Your task to perform on an android device: turn off improve location accuracy Image 0: 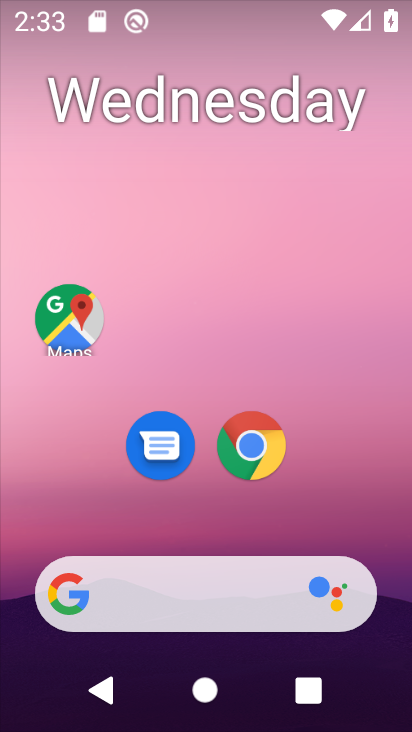
Step 0: drag from (371, 480) to (339, 27)
Your task to perform on an android device: turn off improve location accuracy Image 1: 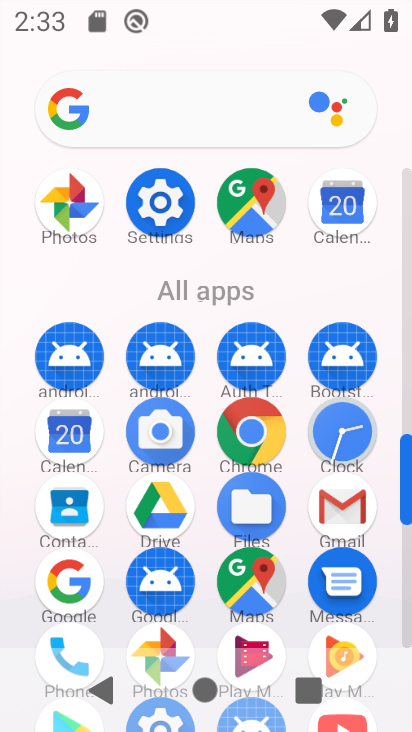
Step 1: click (165, 202)
Your task to perform on an android device: turn off improve location accuracy Image 2: 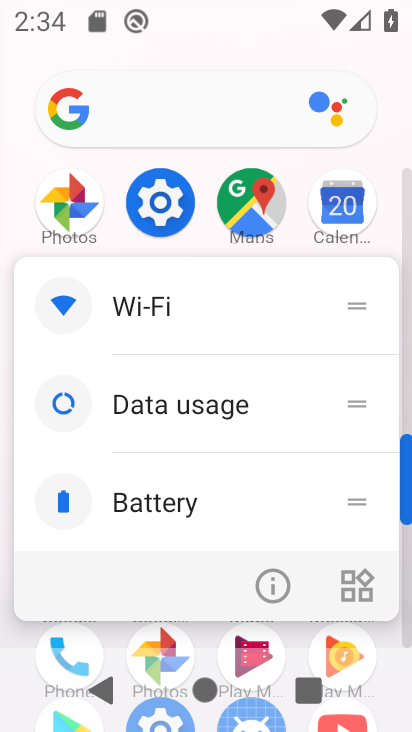
Step 2: click (163, 203)
Your task to perform on an android device: turn off improve location accuracy Image 3: 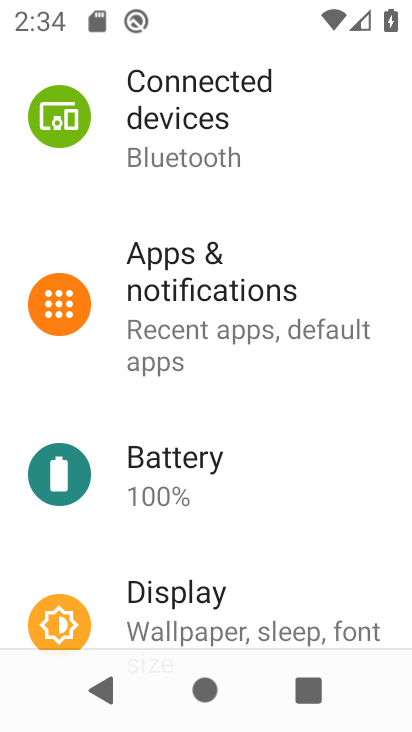
Step 3: drag from (363, 572) to (345, 174)
Your task to perform on an android device: turn off improve location accuracy Image 4: 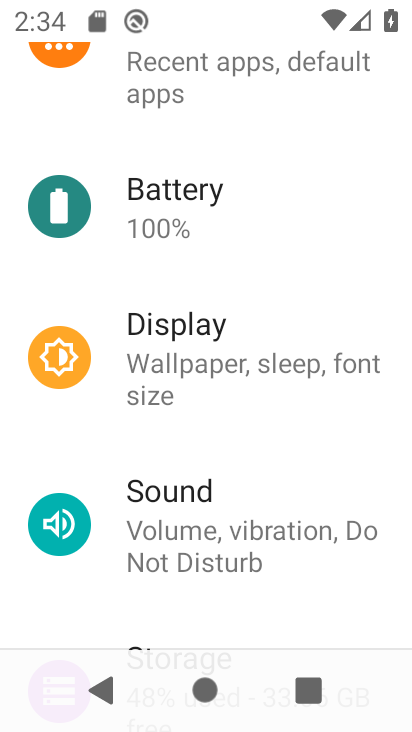
Step 4: drag from (351, 465) to (331, 182)
Your task to perform on an android device: turn off improve location accuracy Image 5: 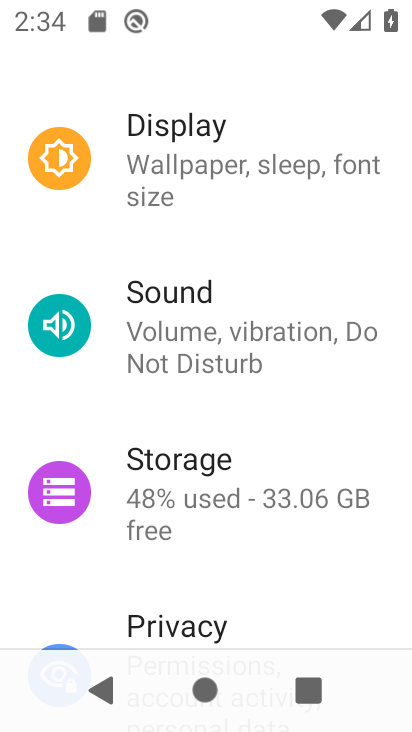
Step 5: drag from (342, 388) to (329, 190)
Your task to perform on an android device: turn off improve location accuracy Image 6: 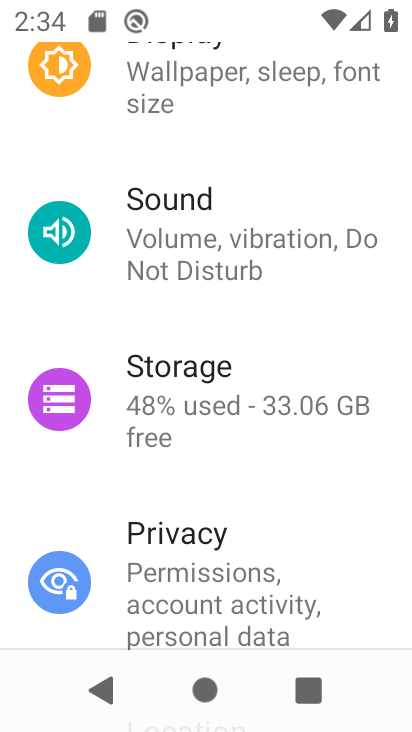
Step 6: drag from (347, 560) to (327, 192)
Your task to perform on an android device: turn off improve location accuracy Image 7: 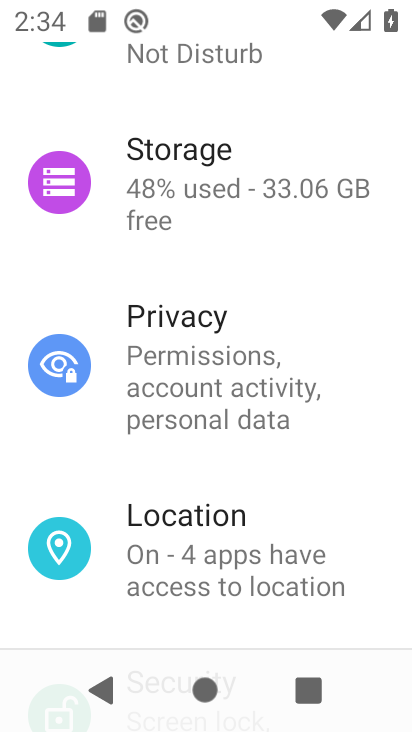
Step 7: click (161, 546)
Your task to perform on an android device: turn off improve location accuracy Image 8: 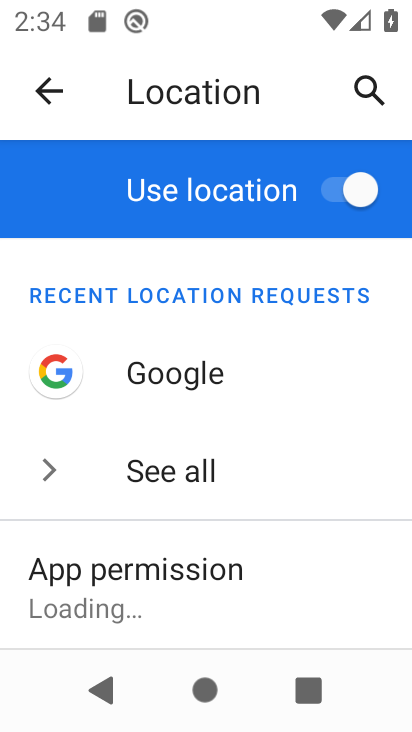
Step 8: drag from (336, 569) to (325, 210)
Your task to perform on an android device: turn off improve location accuracy Image 9: 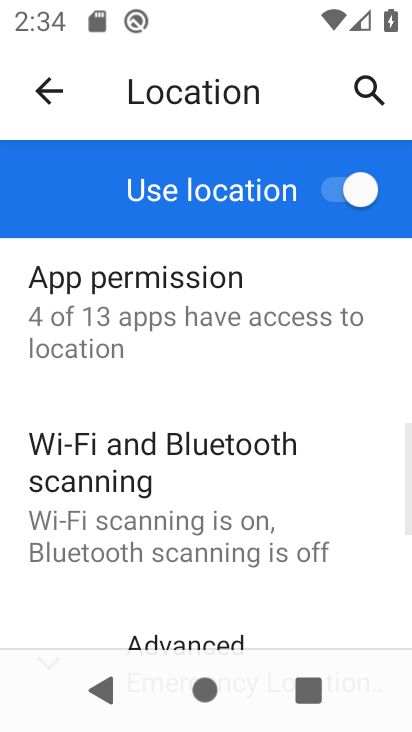
Step 9: drag from (378, 539) to (351, 148)
Your task to perform on an android device: turn off improve location accuracy Image 10: 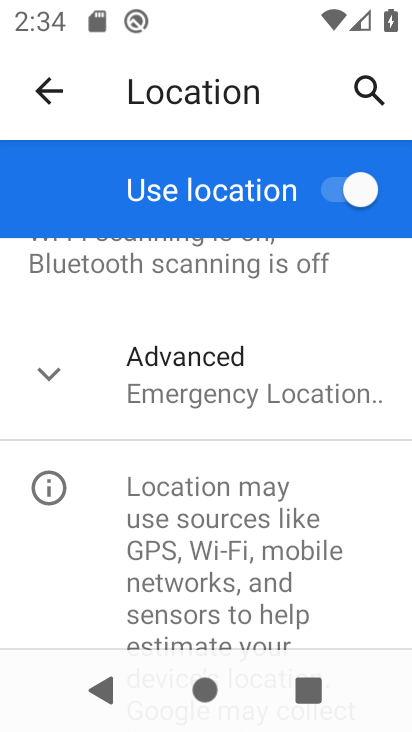
Step 10: click (45, 379)
Your task to perform on an android device: turn off improve location accuracy Image 11: 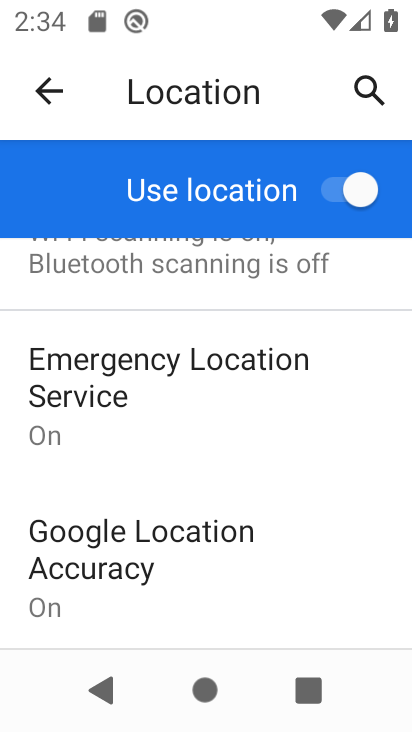
Step 11: click (86, 550)
Your task to perform on an android device: turn off improve location accuracy Image 12: 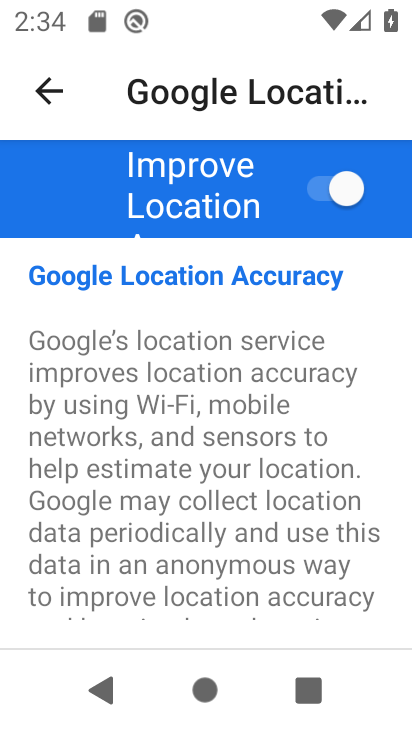
Step 12: click (334, 183)
Your task to perform on an android device: turn off improve location accuracy Image 13: 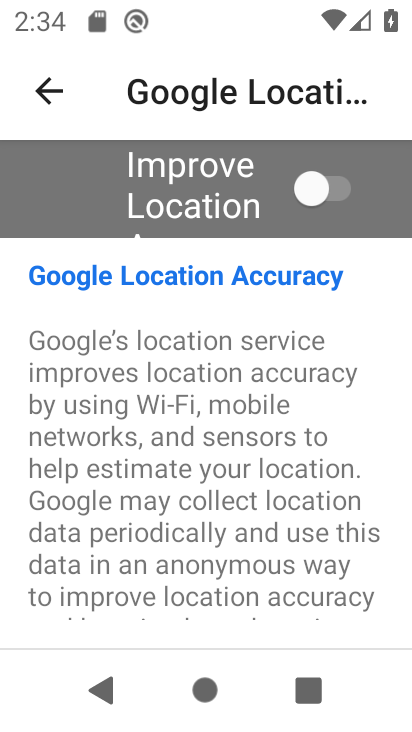
Step 13: task complete